Your task to perform on an android device: Open accessibility settings Image 0: 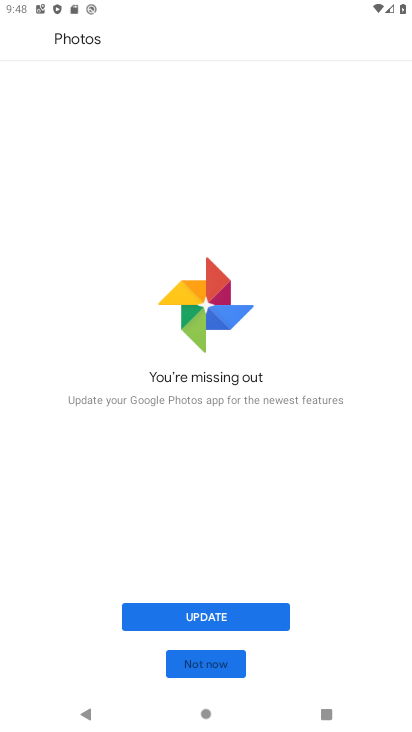
Step 0: press home button
Your task to perform on an android device: Open accessibility settings Image 1: 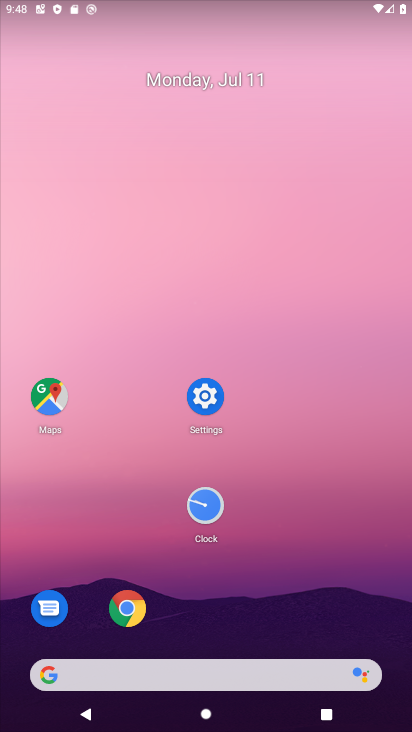
Step 1: click (205, 392)
Your task to perform on an android device: Open accessibility settings Image 2: 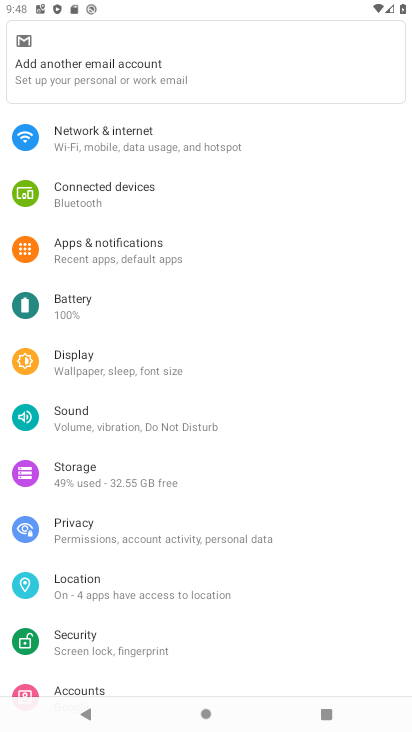
Step 2: drag from (262, 368) to (264, 298)
Your task to perform on an android device: Open accessibility settings Image 3: 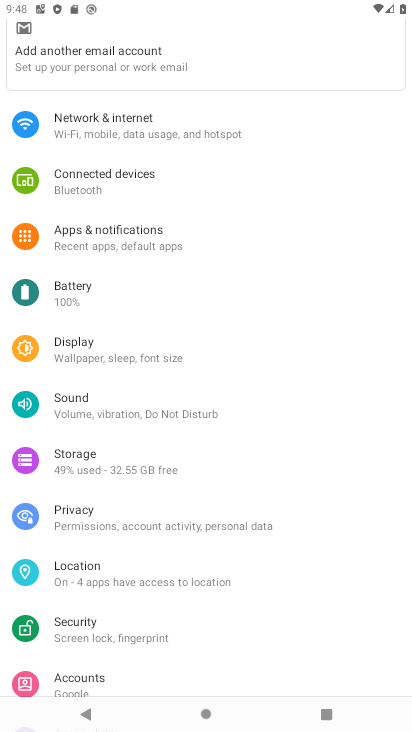
Step 3: drag from (277, 628) to (301, 189)
Your task to perform on an android device: Open accessibility settings Image 4: 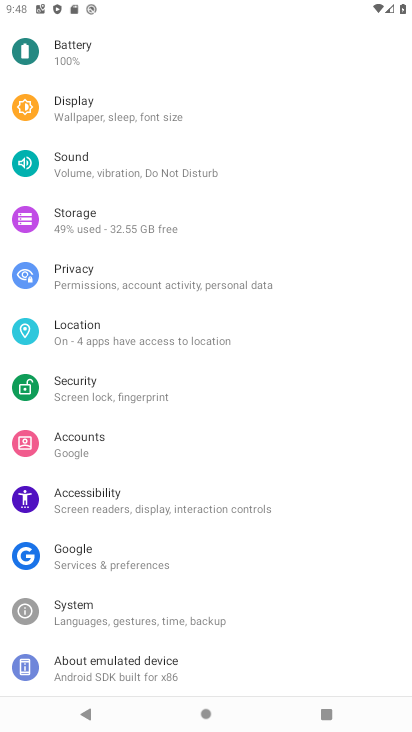
Step 4: click (64, 491)
Your task to perform on an android device: Open accessibility settings Image 5: 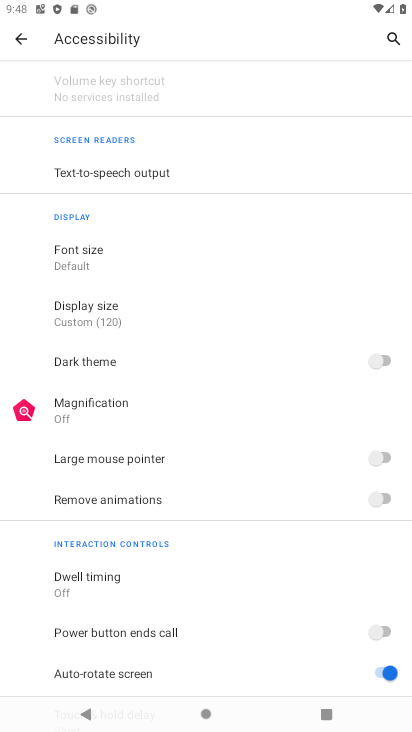
Step 5: task complete